Your task to perform on an android device: Open calendar and show me the fourth week of next month Image 0: 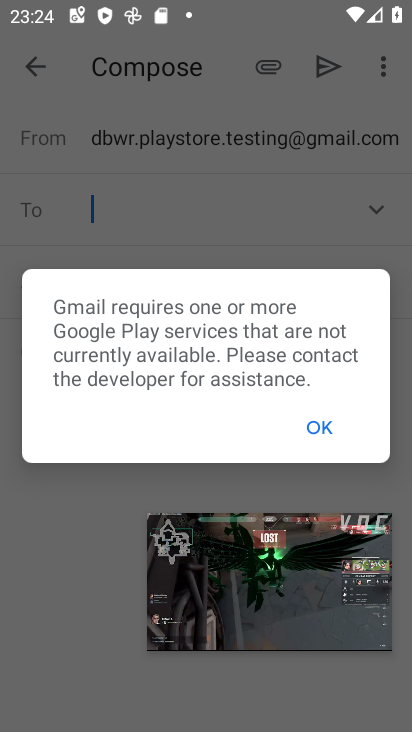
Step 0: drag from (319, 573) to (295, 710)
Your task to perform on an android device: Open calendar and show me the fourth week of next month Image 1: 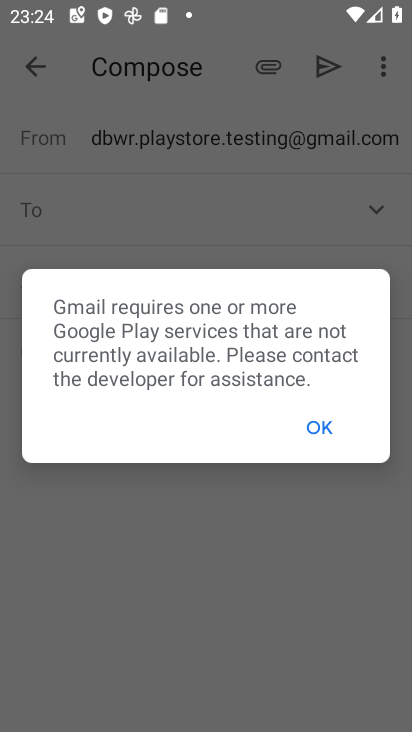
Step 1: press home button
Your task to perform on an android device: Open calendar and show me the fourth week of next month Image 2: 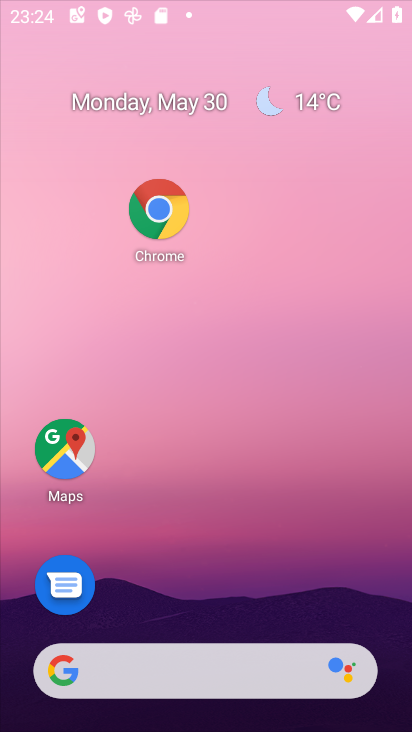
Step 2: drag from (145, 622) to (358, 18)
Your task to perform on an android device: Open calendar and show me the fourth week of next month Image 3: 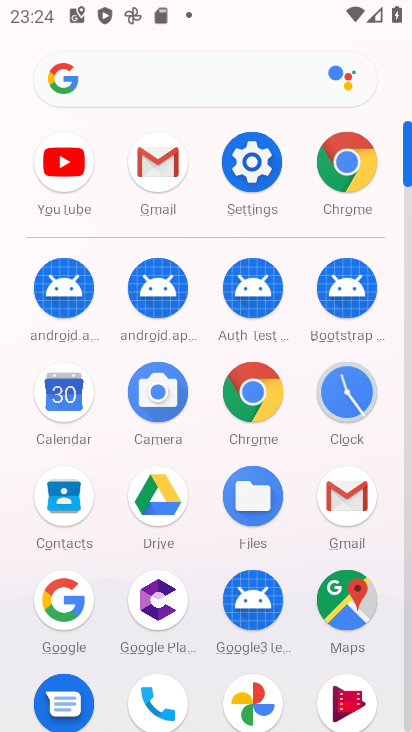
Step 3: click (79, 385)
Your task to perform on an android device: Open calendar and show me the fourth week of next month Image 4: 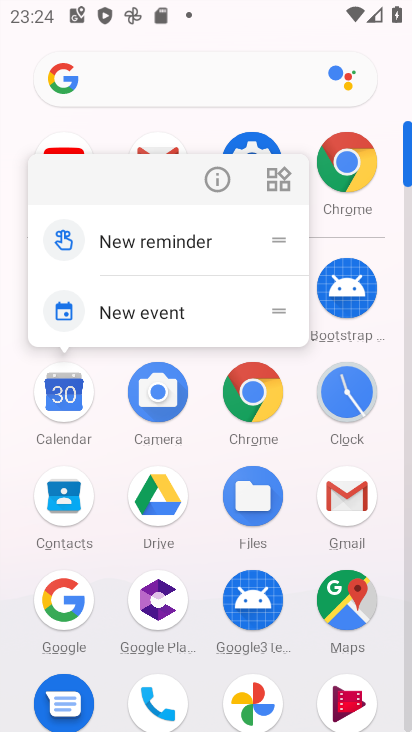
Step 4: click (210, 181)
Your task to perform on an android device: Open calendar and show me the fourth week of next month Image 5: 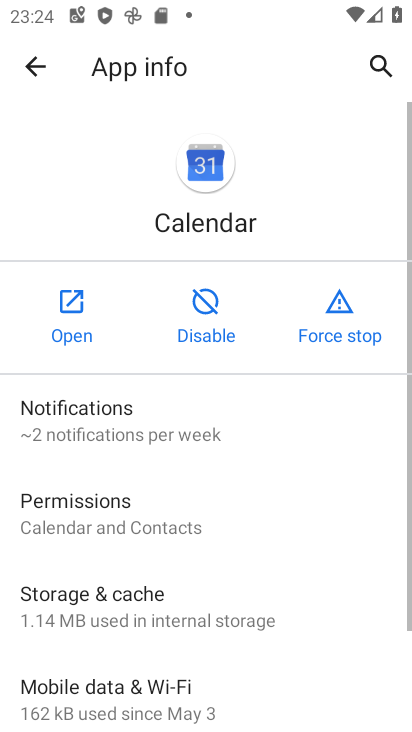
Step 5: click (73, 283)
Your task to perform on an android device: Open calendar and show me the fourth week of next month Image 6: 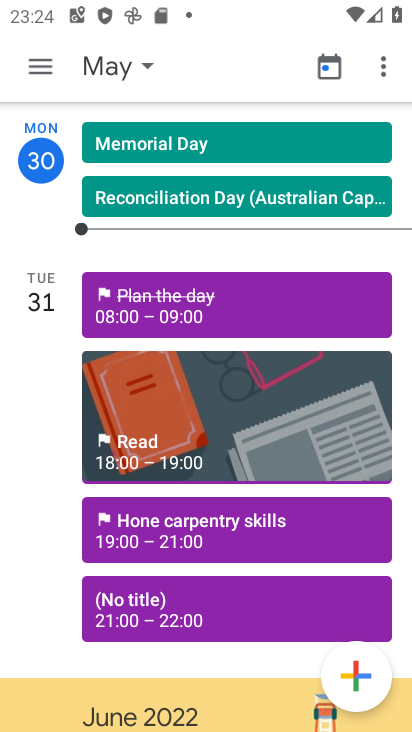
Step 6: click (129, 58)
Your task to perform on an android device: Open calendar and show me the fourth week of next month Image 7: 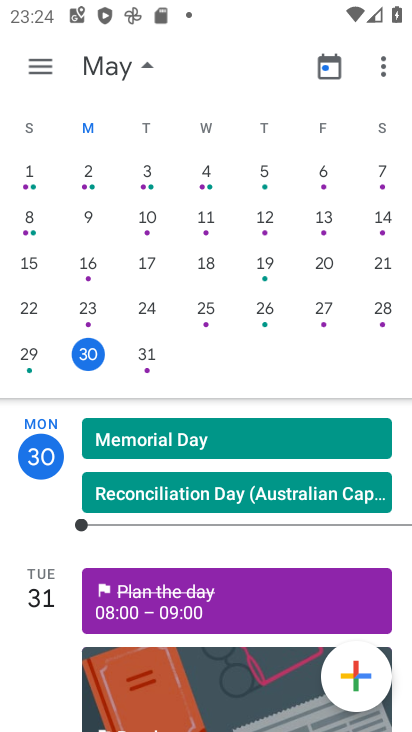
Step 7: drag from (336, 225) to (49, 274)
Your task to perform on an android device: Open calendar and show me the fourth week of next month Image 8: 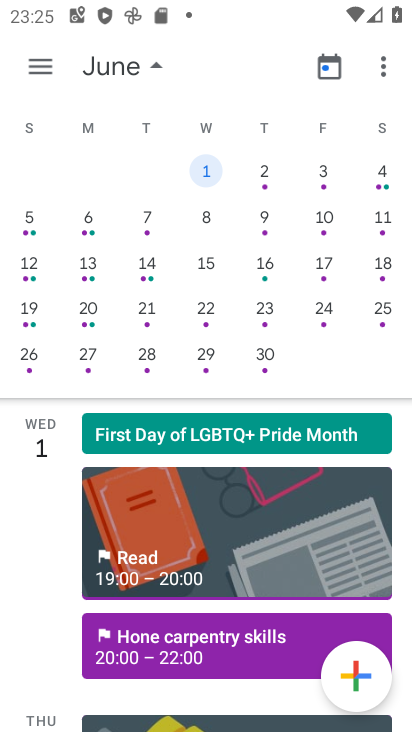
Step 8: click (210, 313)
Your task to perform on an android device: Open calendar and show me the fourth week of next month Image 9: 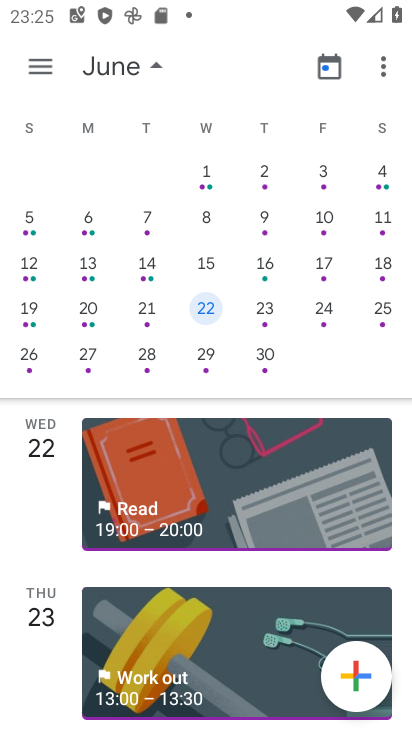
Step 9: task complete